Your task to perform on an android device: Open eBay Image 0: 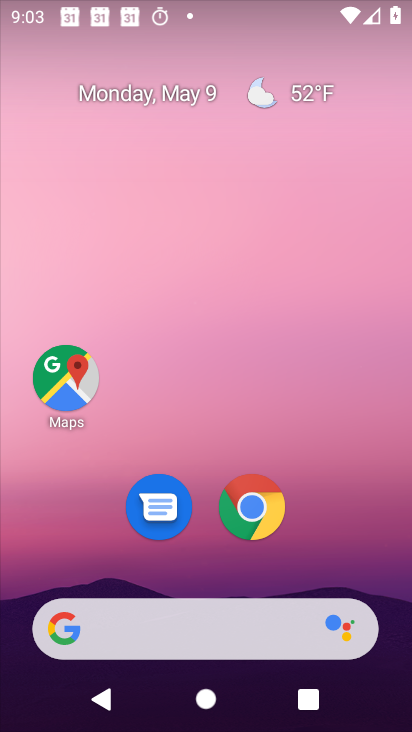
Step 0: drag from (338, 531) to (241, 76)
Your task to perform on an android device: Open eBay Image 1: 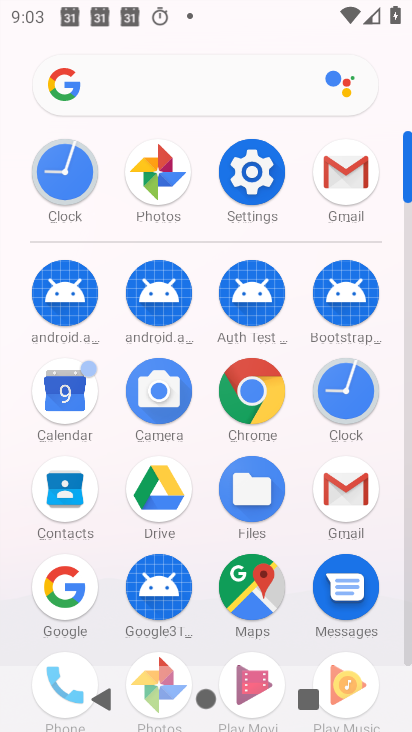
Step 1: click (61, 588)
Your task to perform on an android device: Open eBay Image 2: 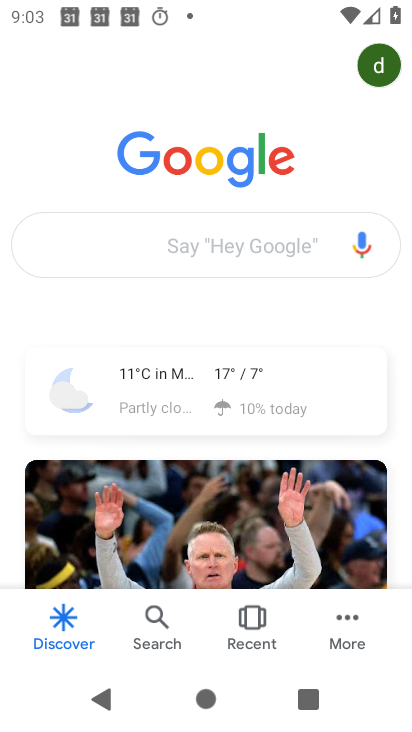
Step 2: click (189, 230)
Your task to perform on an android device: Open eBay Image 3: 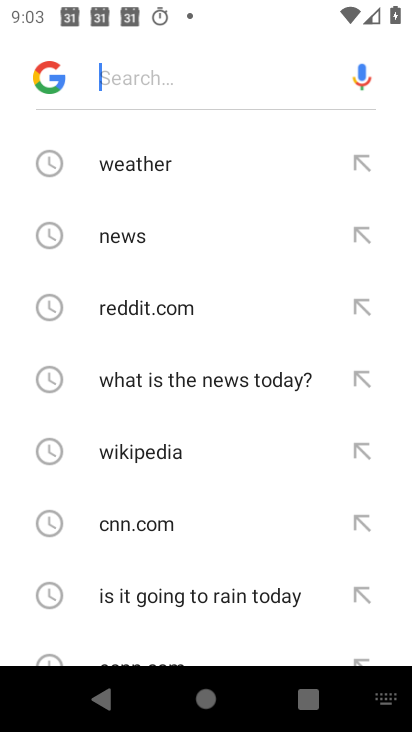
Step 3: type "eBay"
Your task to perform on an android device: Open eBay Image 4: 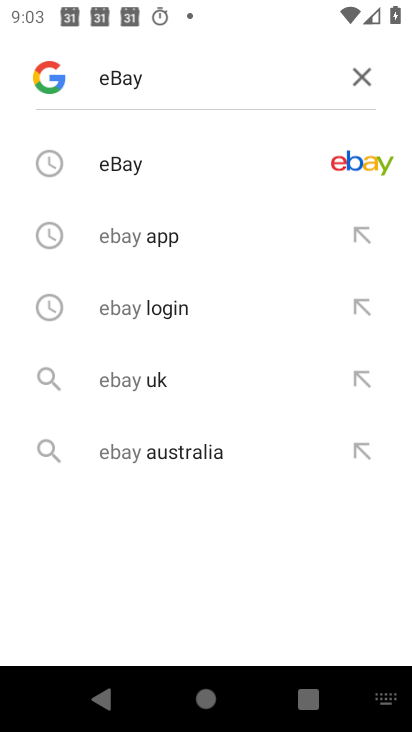
Step 4: click (129, 165)
Your task to perform on an android device: Open eBay Image 5: 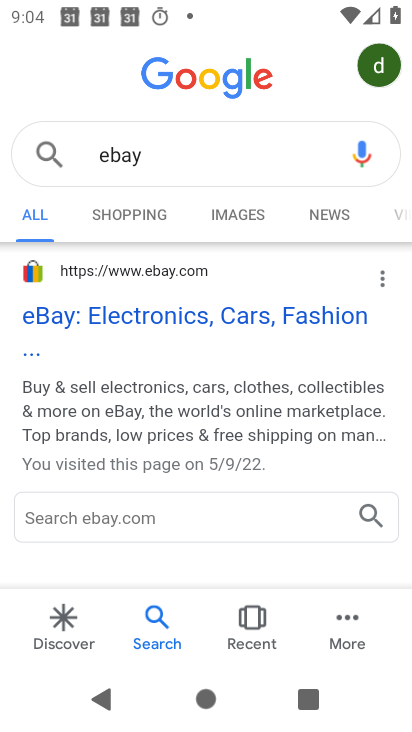
Step 5: click (145, 313)
Your task to perform on an android device: Open eBay Image 6: 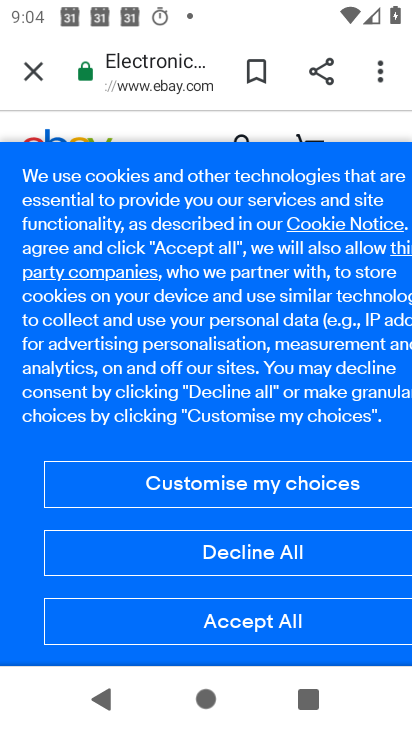
Step 6: task complete